Your task to perform on an android device: turn off picture-in-picture Image 0: 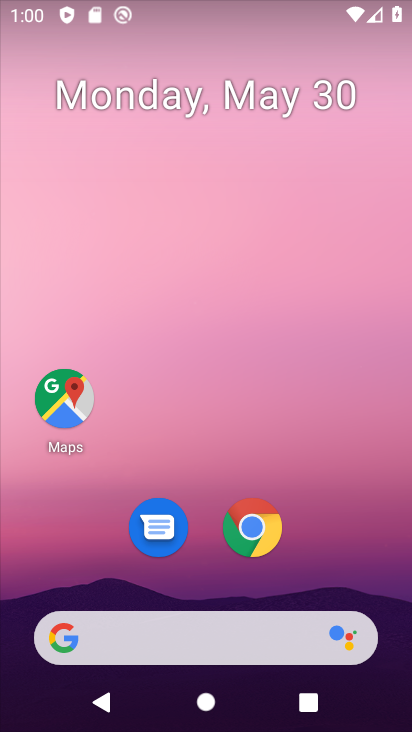
Step 0: click (248, 515)
Your task to perform on an android device: turn off picture-in-picture Image 1: 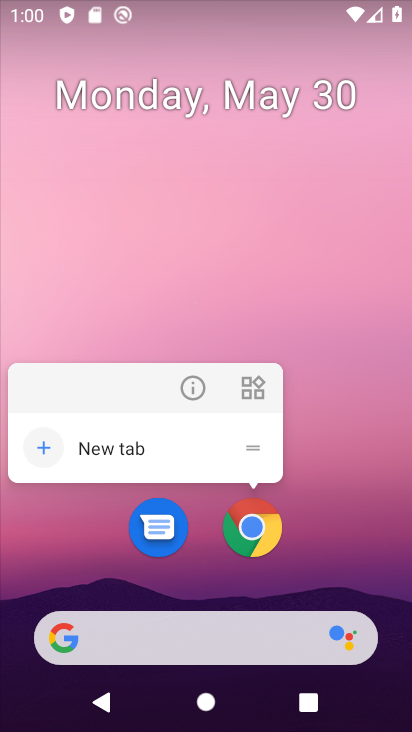
Step 1: click (204, 387)
Your task to perform on an android device: turn off picture-in-picture Image 2: 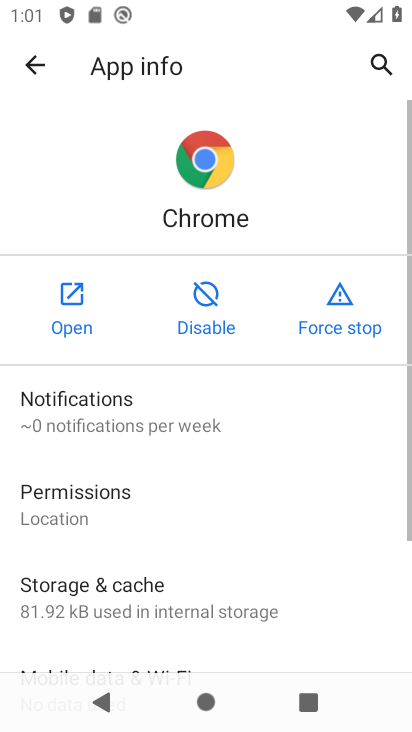
Step 2: drag from (184, 550) to (268, 149)
Your task to perform on an android device: turn off picture-in-picture Image 3: 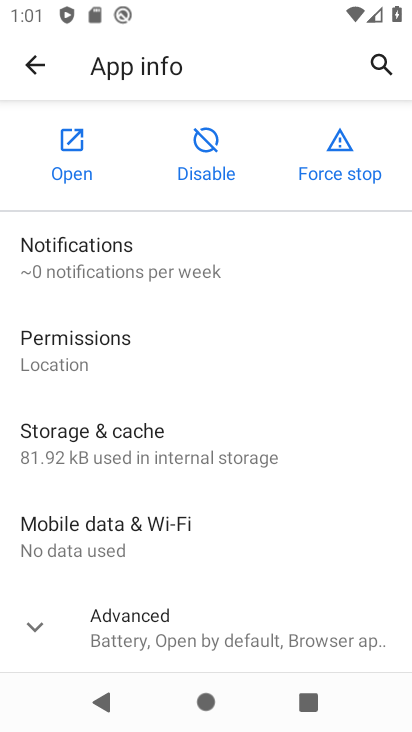
Step 3: click (122, 609)
Your task to perform on an android device: turn off picture-in-picture Image 4: 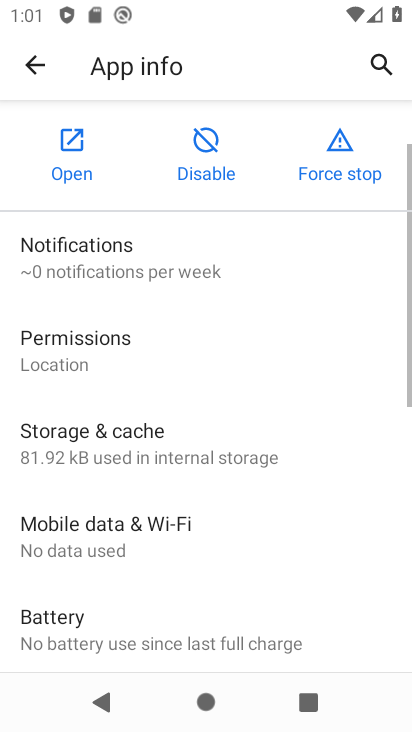
Step 4: drag from (185, 622) to (245, 141)
Your task to perform on an android device: turn off picture-in-picture Image 5: 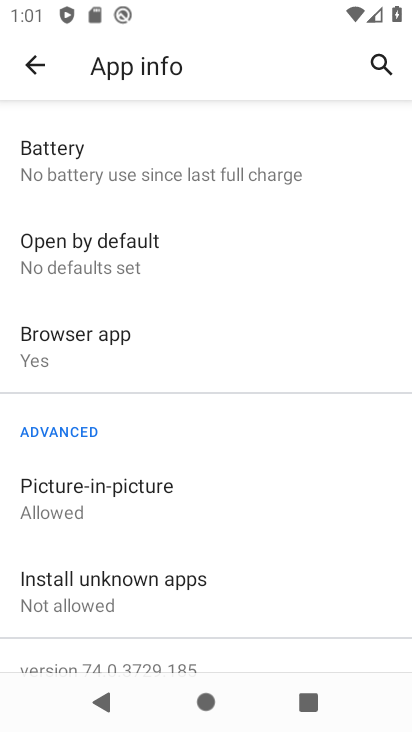
Step 5: click (155, 522)
Your task to perform on an android device: turn off picture-in-picture Image 6: 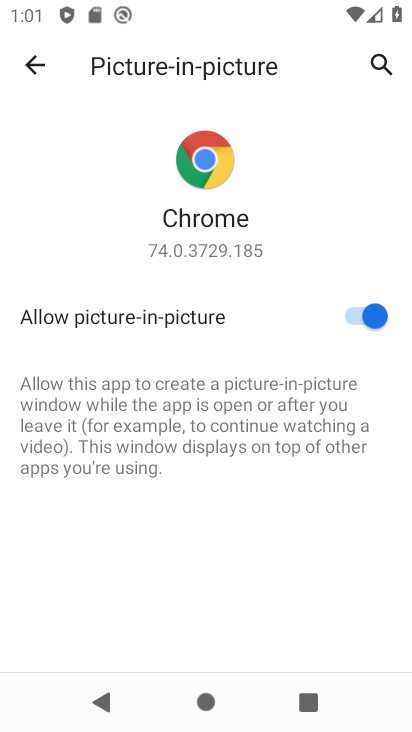
Step 6: click (340, 310)
Your task to perform on an android device: turn off picture-in-picture Image 7: 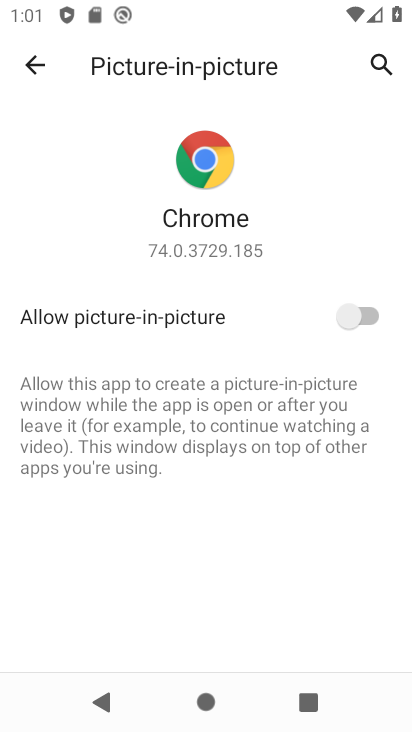
Step 7: task complete